Your task to perform on an android device: View the shopping cart on bestbuy. Add "usb-c to usb-a" to the cart on bestbuy Image 0: 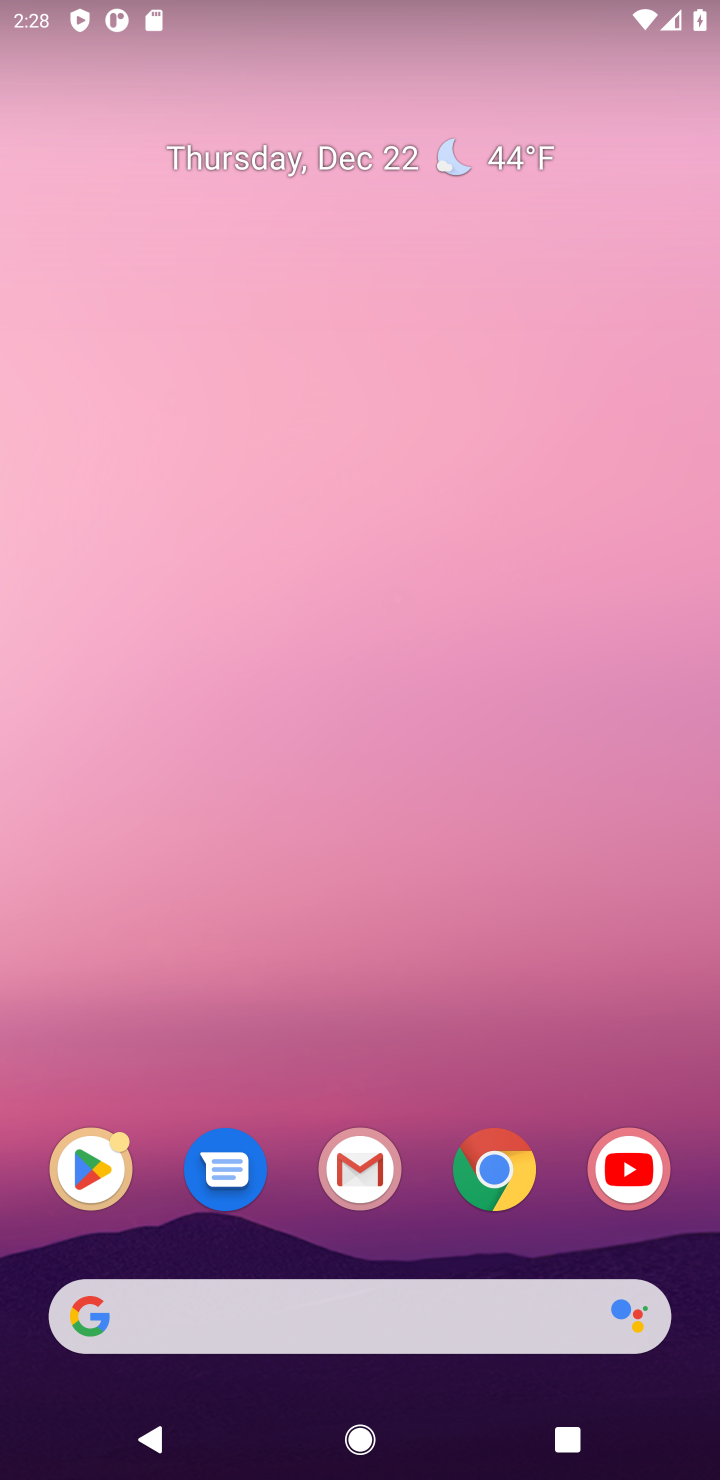
Step 0: click (499, 1162)
Your task to perform on an android device: View the shopping cart on bestbuy. Add "usb-c to usb-a" to the cart on bestbuy Image 1: 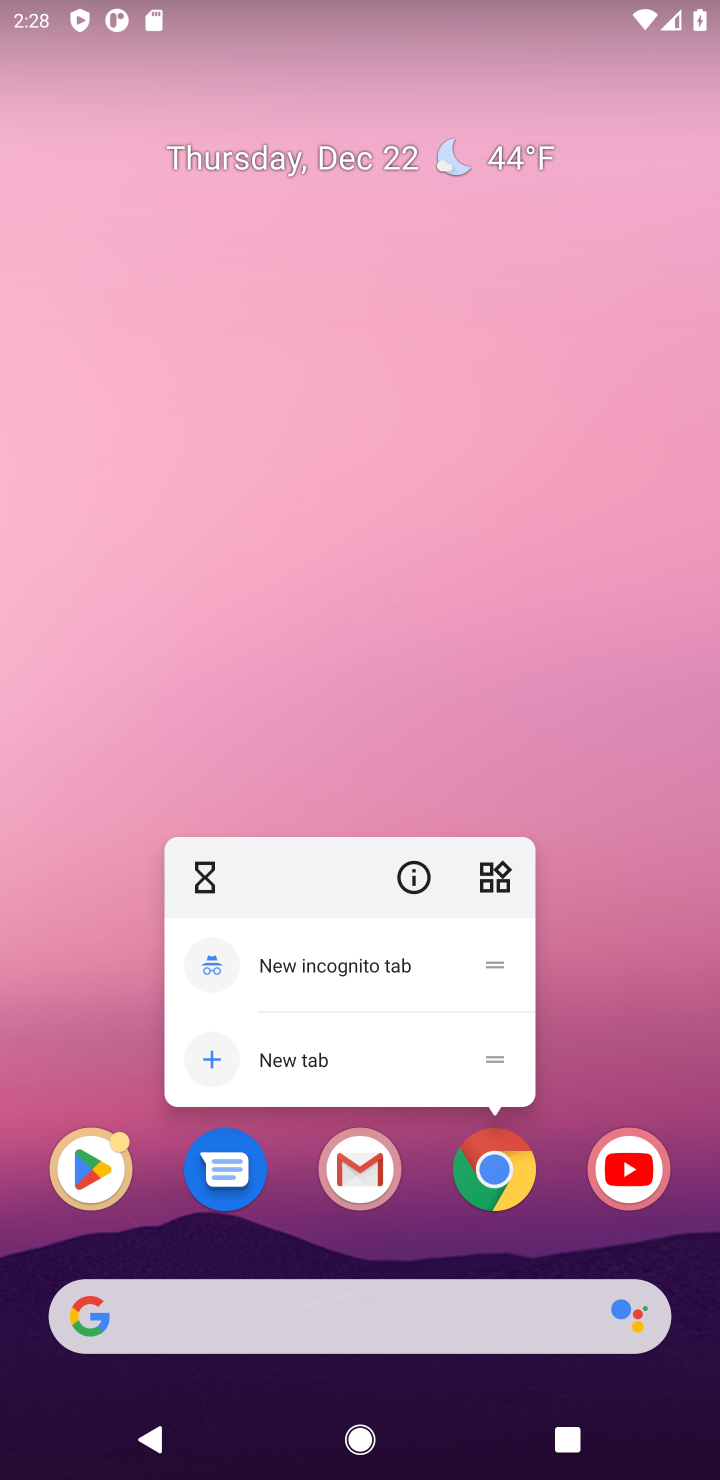
Step 1: click (499, 1162)
Your task to perform on an android device: View the shopping cart on bestbuy. Add "usb-c to usb-a" to the cart on bestbuy Image 2: 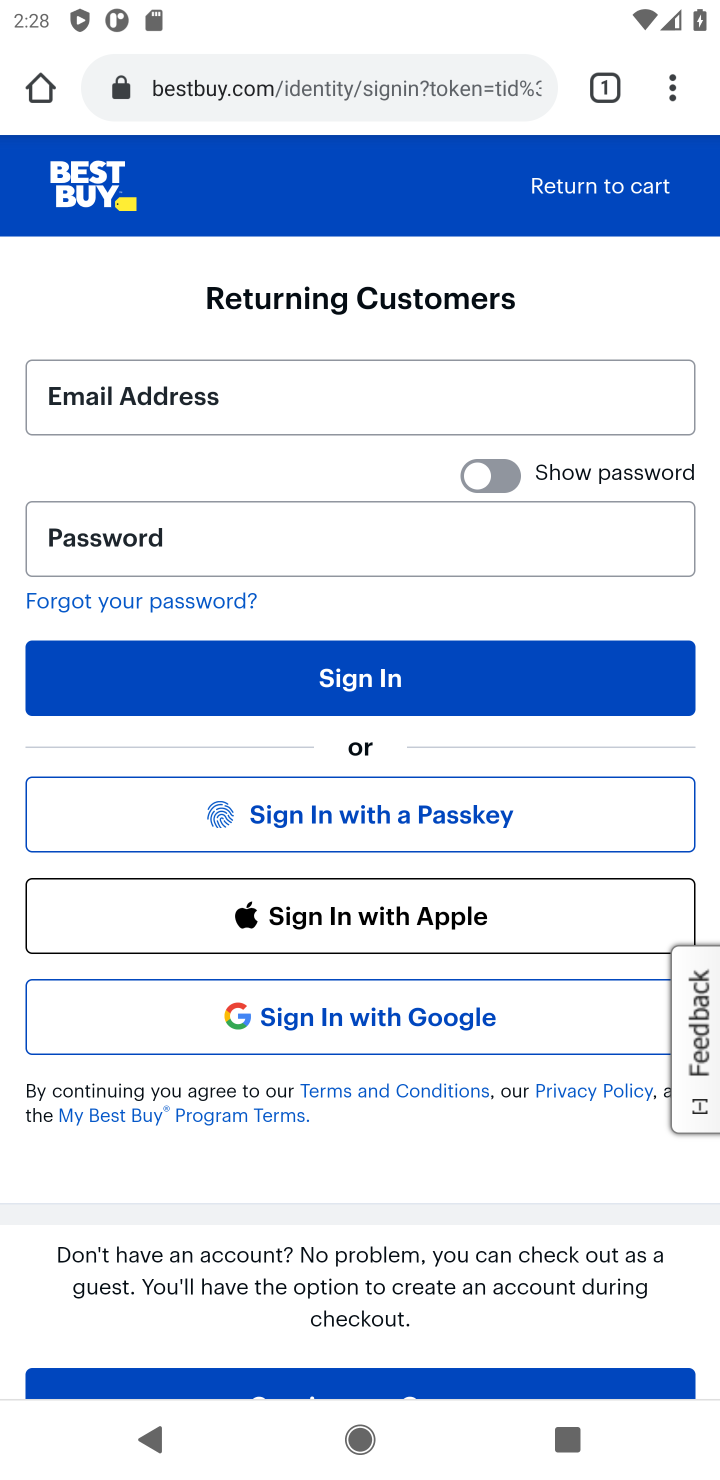
Step 2: press back button
Your task to perform on an android device: View the shopping cart on bestbuy. Add "usb-c to usb-a" to the cart on bestbuy Image 3: 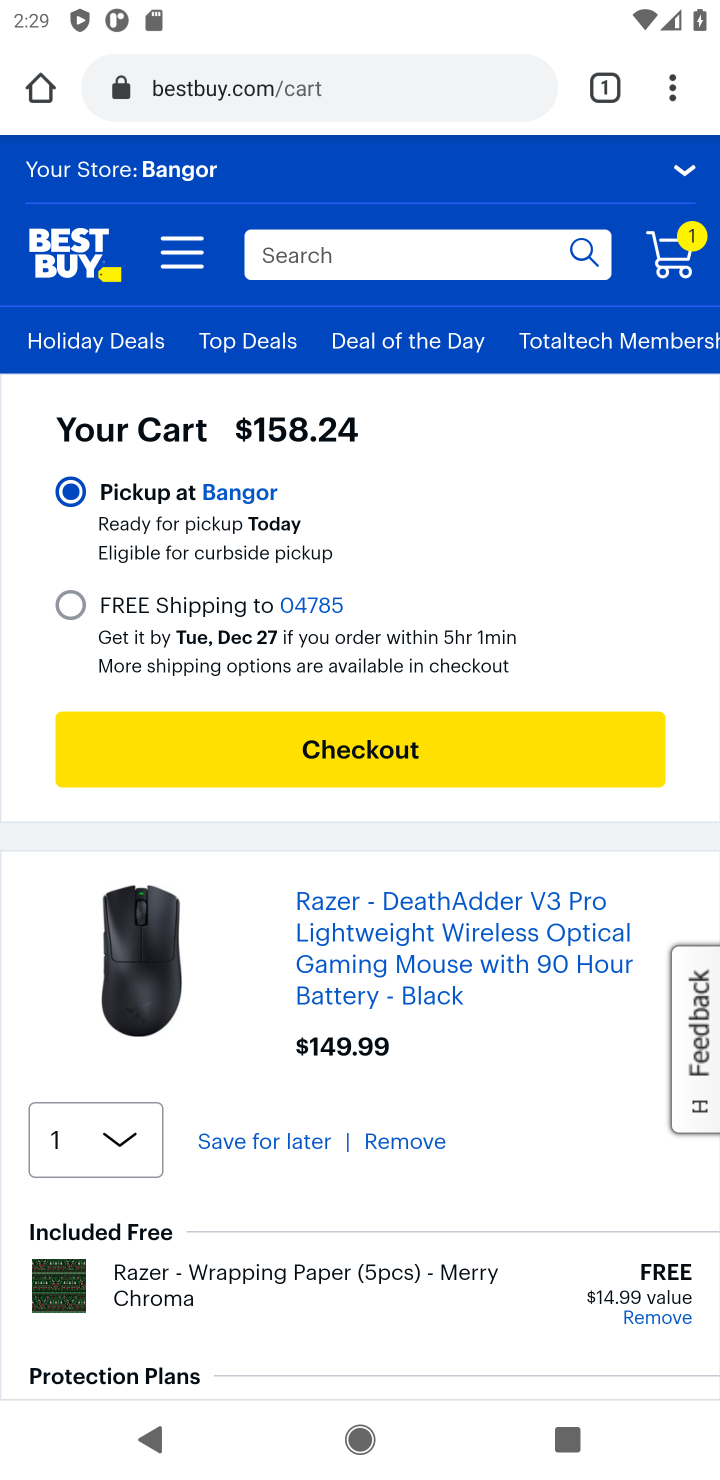
Step 3: click (290, 255)
Your task to perform on an android device: View the shopping cart on bestbuy. Add "usb-c to usb-a" to the cart on bestbuy Image 4: 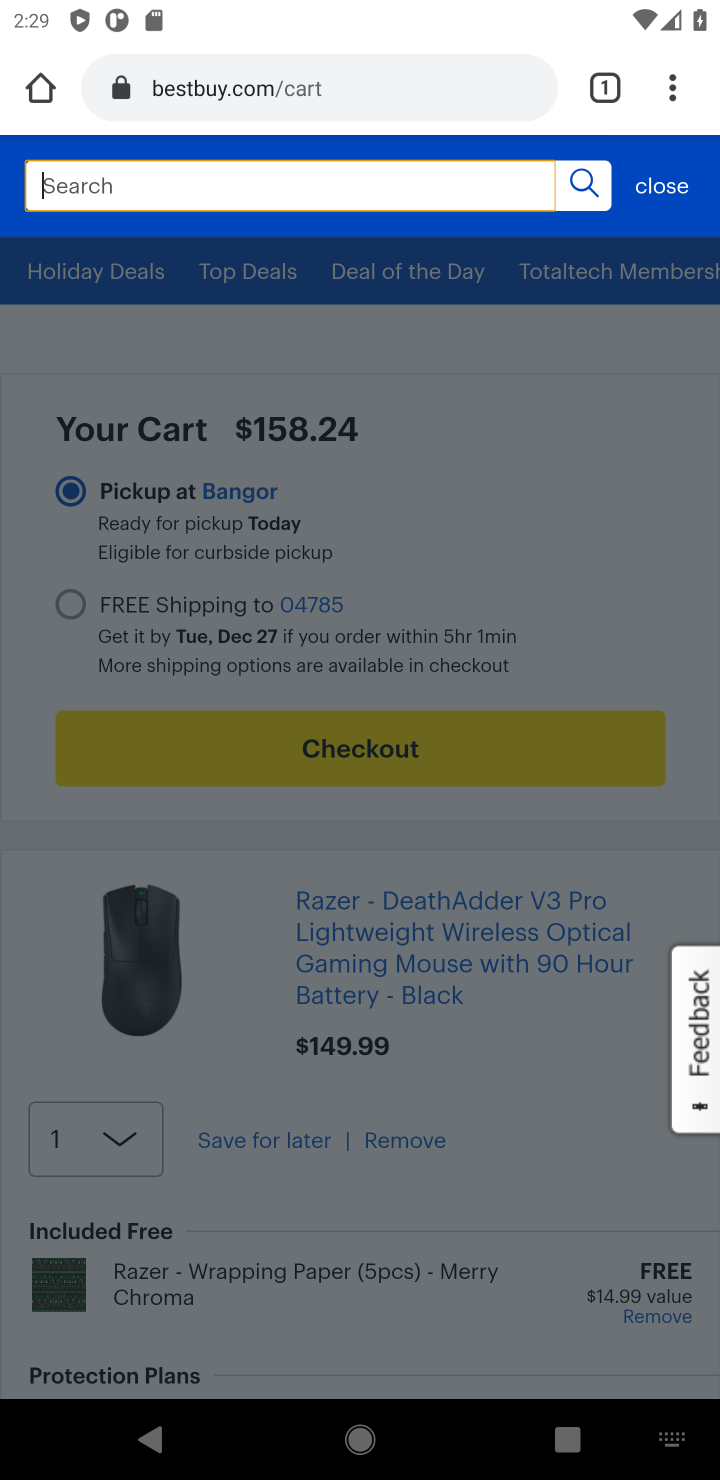
Step 4: type "usb-c to usb-a"
Your task to perform on an android device: View the shopping cart on bestbuy. Add "usb-c to usb-a" to the cart on bestbuy Image 5: 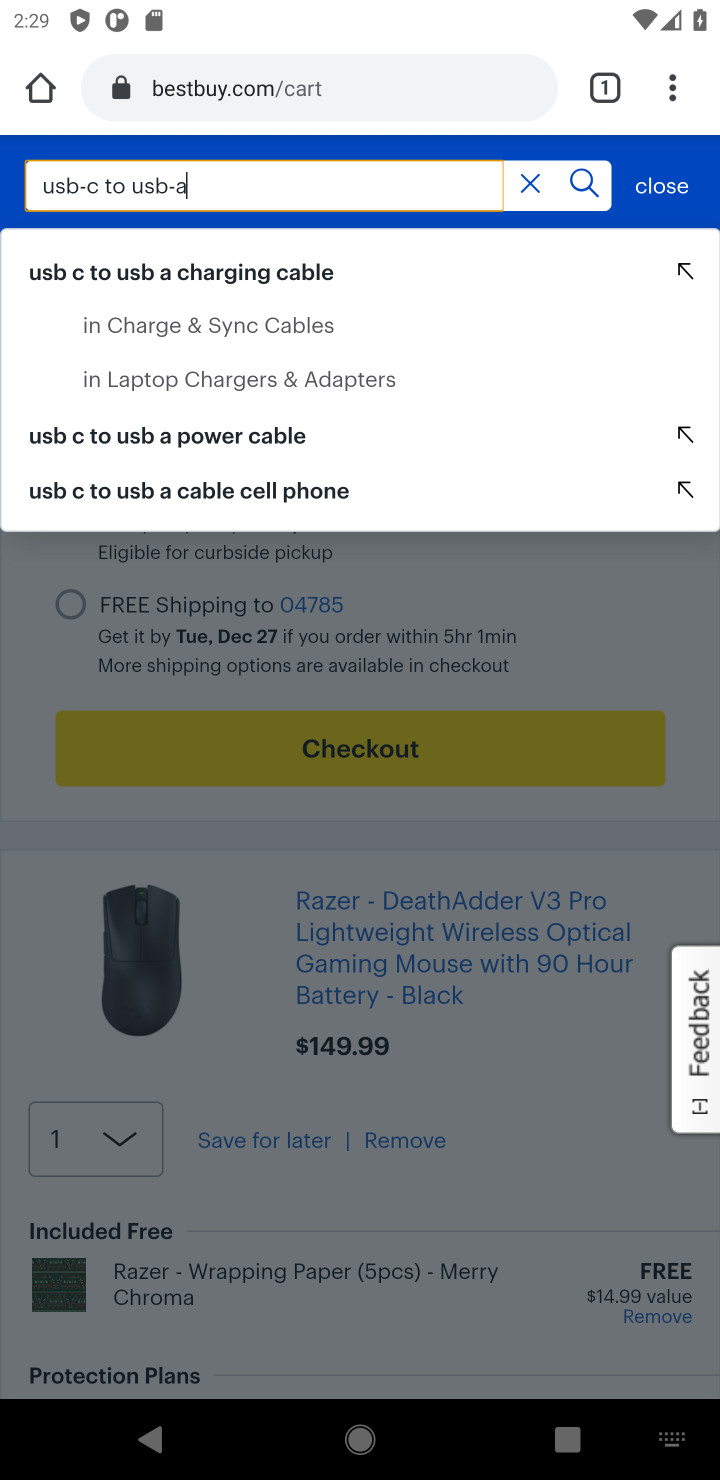
Step 5: click (574, 185)
Your task to perform on an android device: View the shopping cart on bestbuy. Add "usb-c to usb-a" to the cart on bestbuy Image 6: 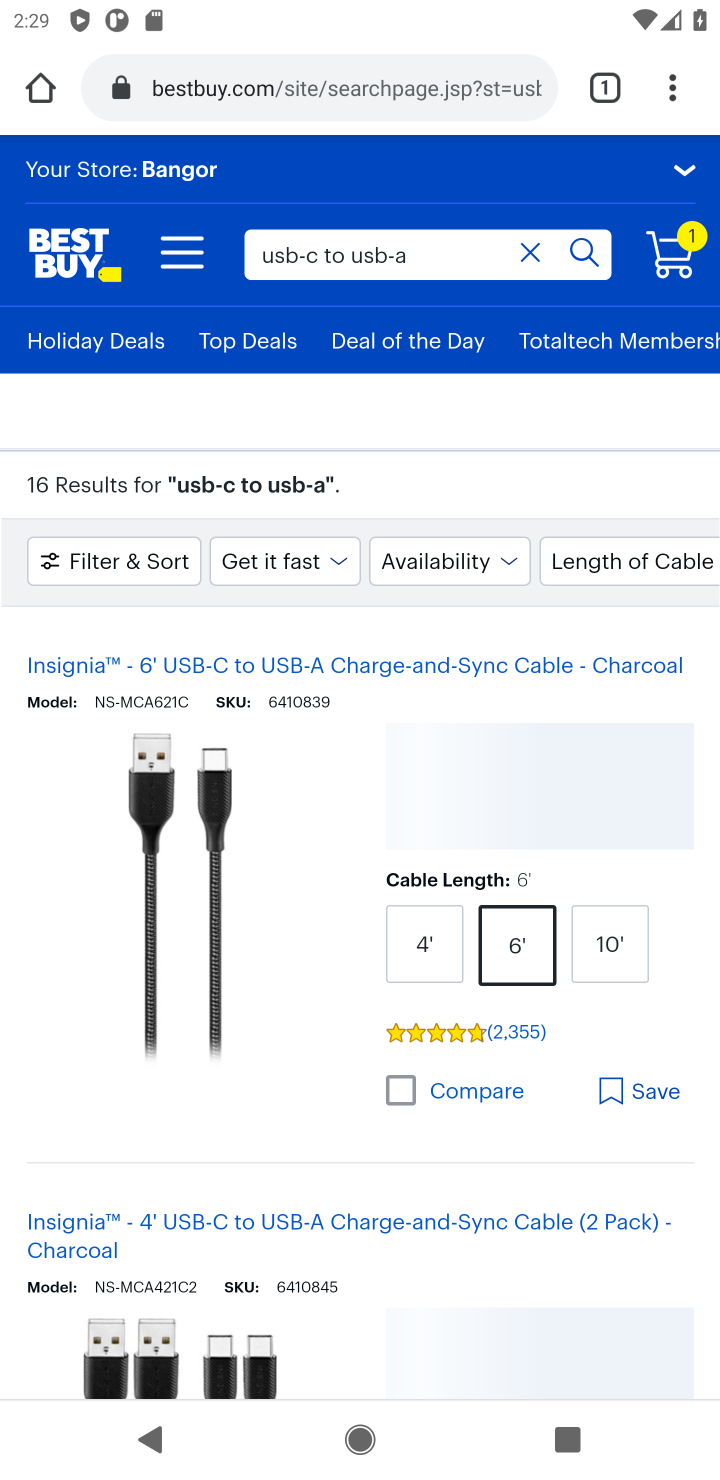
Step 6: drag from (266, 738) to (308, 453)
Your task to perform on an android device: View the shopping cart on bestbuy. Add "usb-c to usb-a" to the cart on bestbuy Image 7: 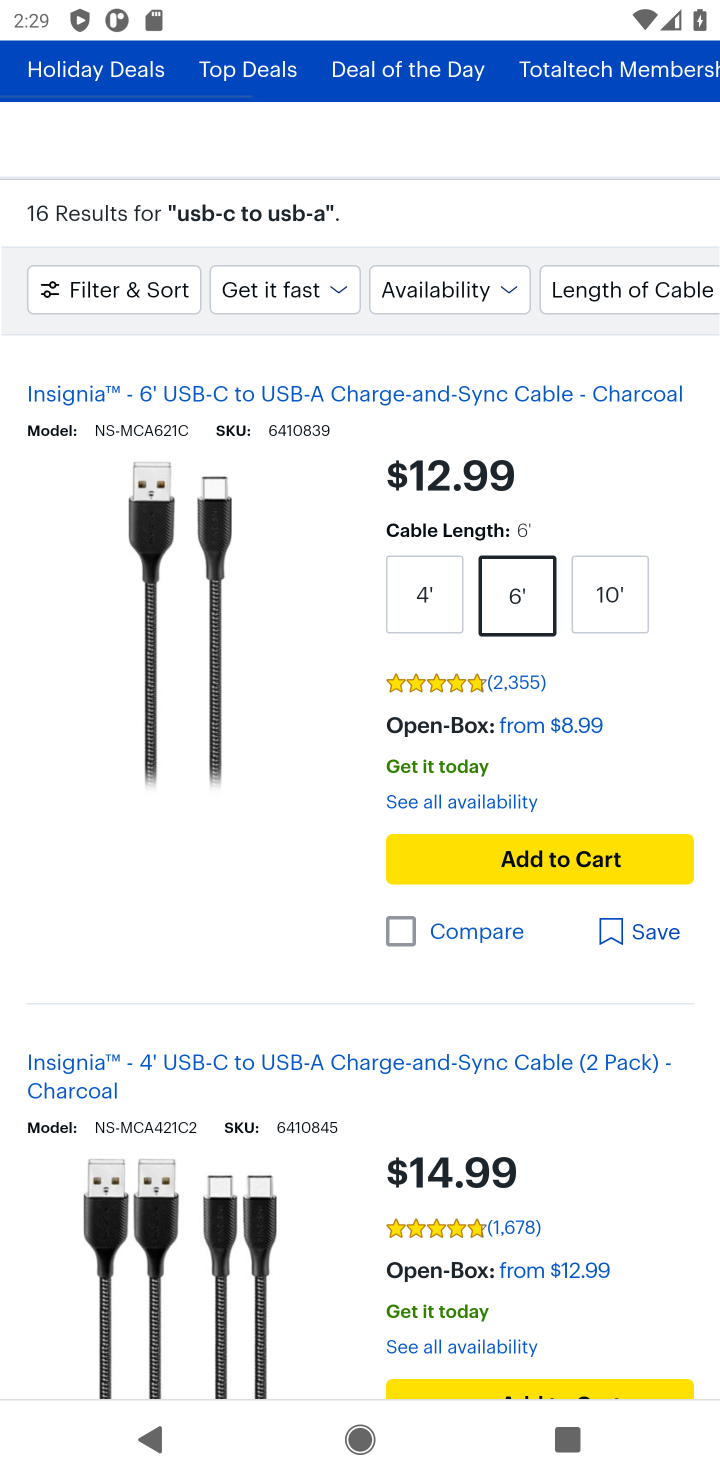
Step 7: click (489, 742)
Your task to perform on an android device: View the shopping cart on bestbuy. Add "usb-c to usb-a" to the cart on bestbuy Image 8: 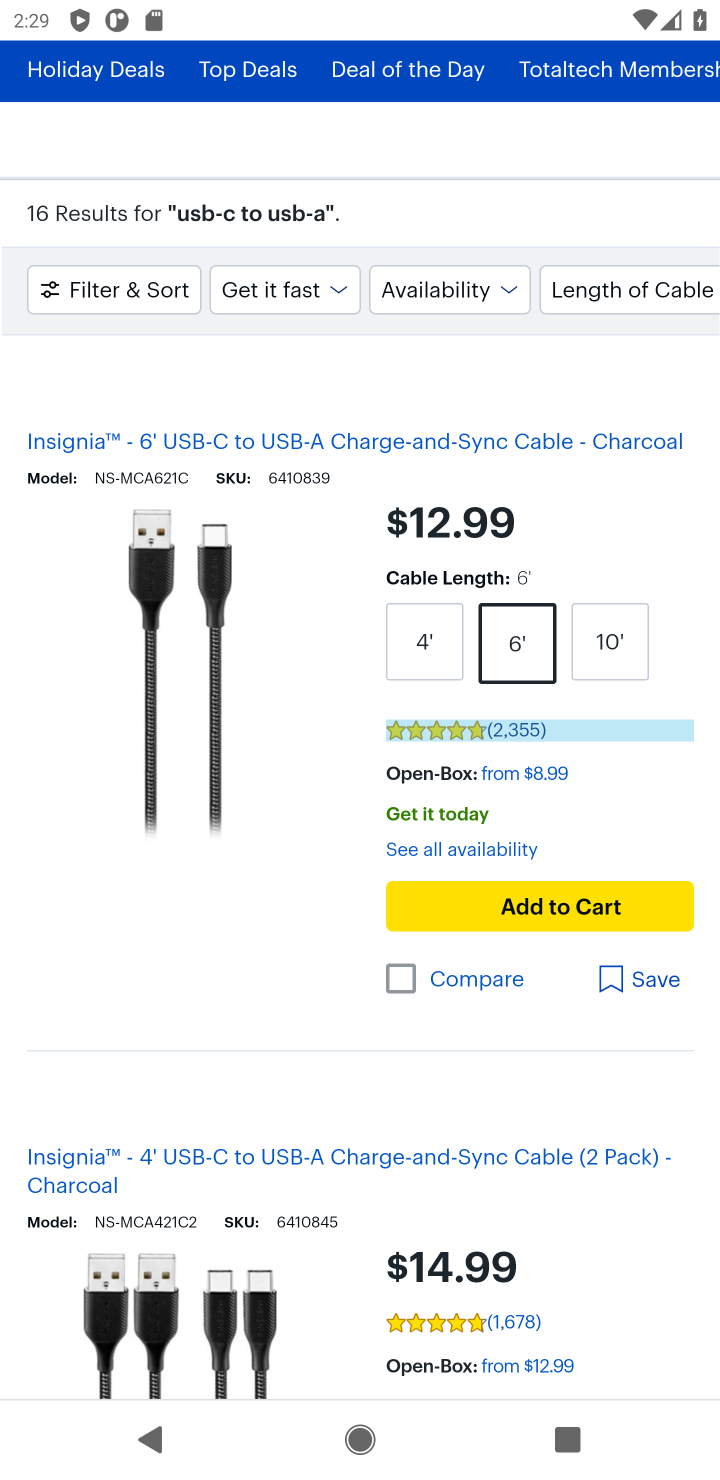
Step 8: click (517, 905)
Your task to perform on an android device: View the shopping cart on bestbuy. Add "usb-c to usb-a" to the cart on bestbuy Image 9: 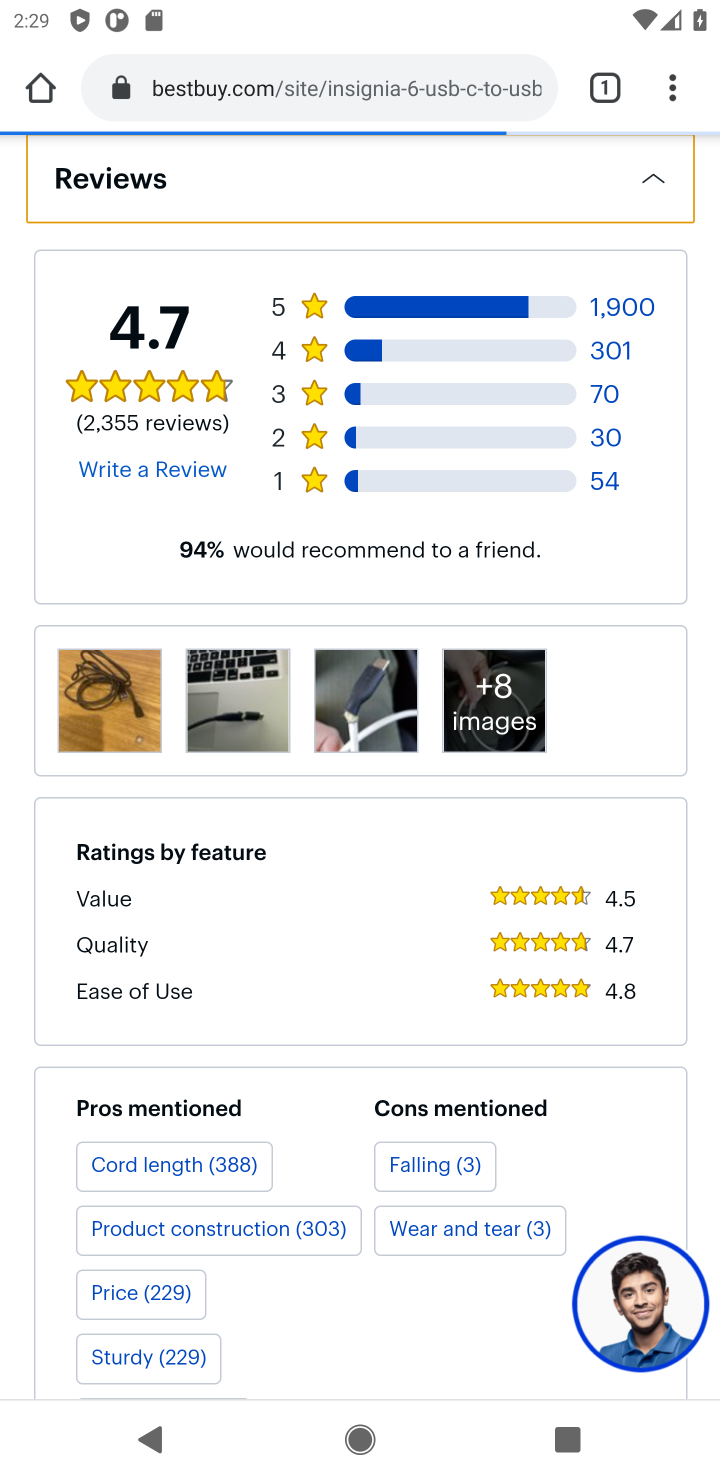
Step 9: drag from (424, 874) to (423, 396)
Your task to perform on an android device: View the shopping cart on bestbuy. Add "usb-c to usb-a" to the cart on bestbuy Image 10: 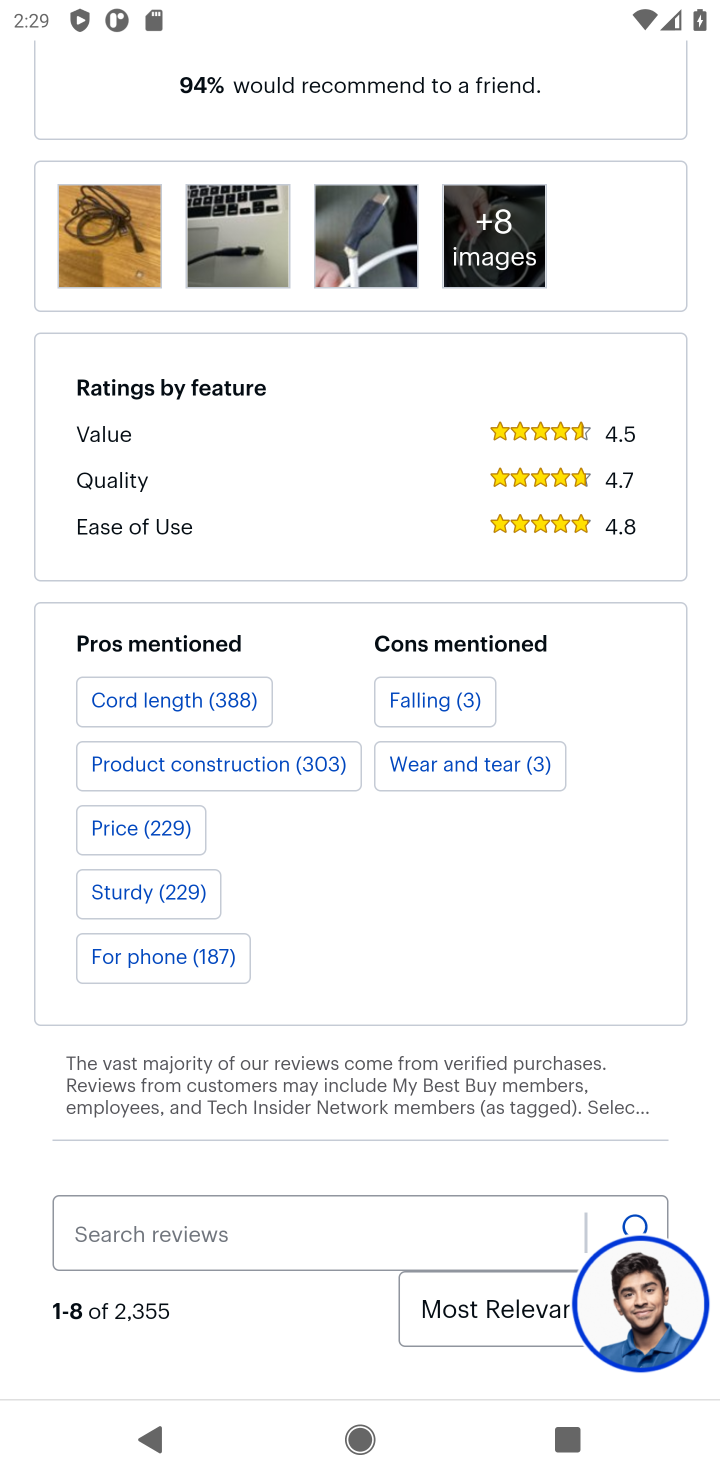
Step 10: drag from (336, 1105) to (412, 601)
Your task to perform on an android device: View the shopping cart on bestbuy. Add "usb-c to usb-a" to the cart on bestbuy Image 11: 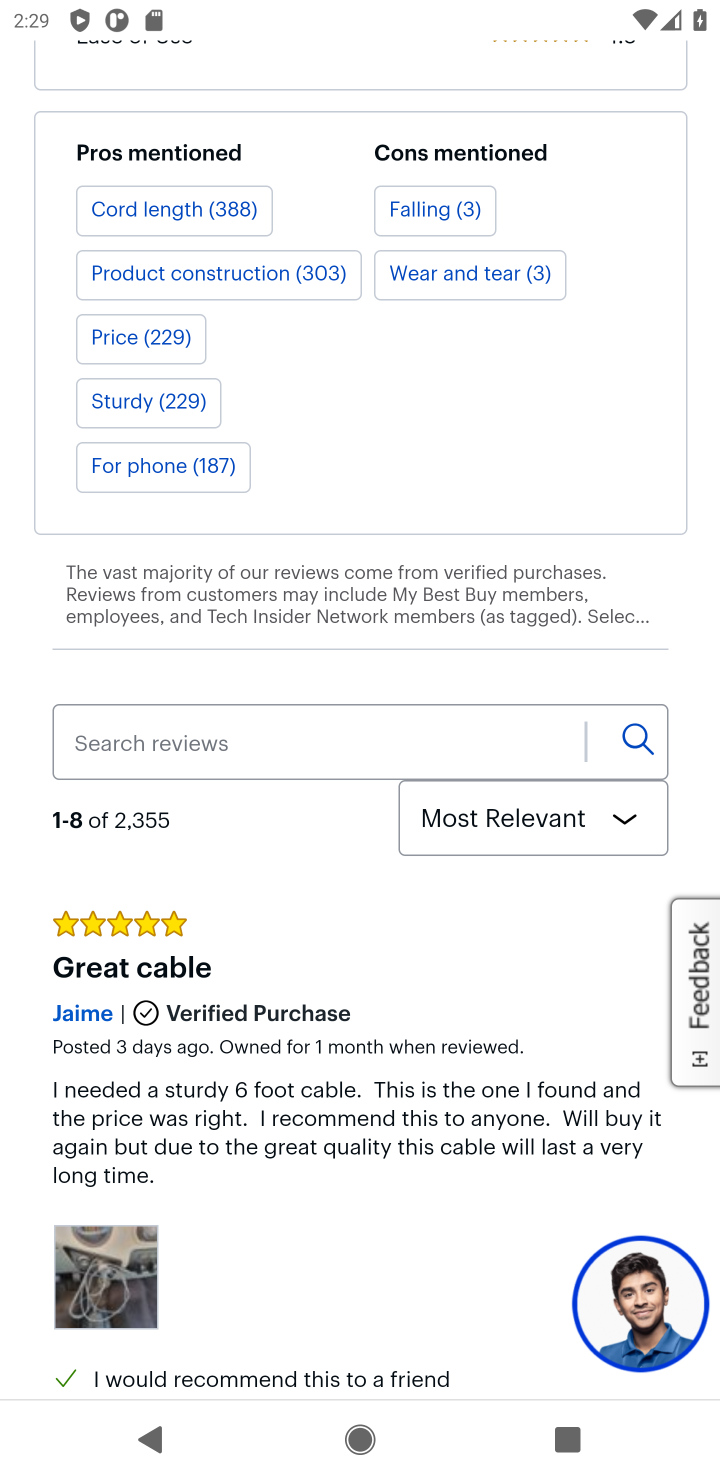
Step 11: press back button
Your task to perform on an android device: View the shopping cart on bestbuy. Add "usb-c to usb-a" to the cart on bestbuy Image 12: 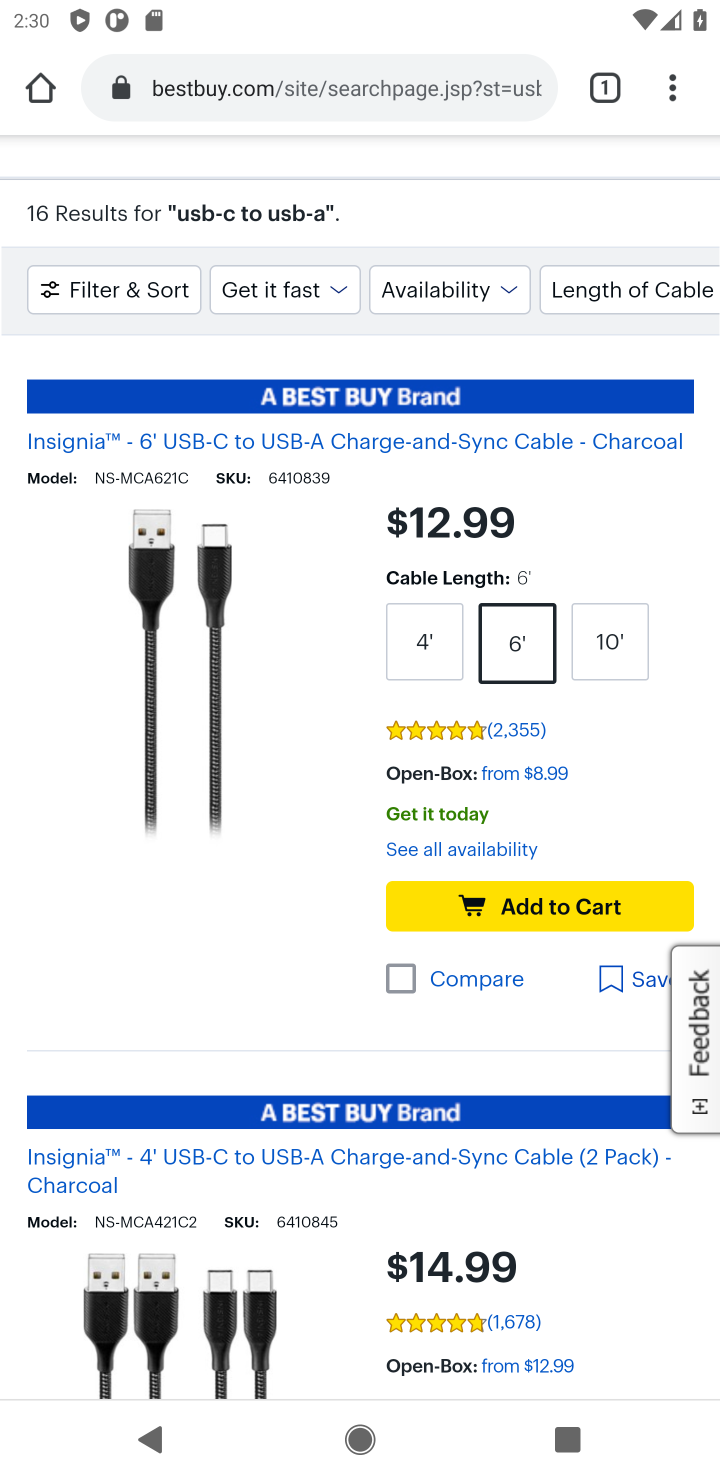
Step 12: click (496, 913)
Your task to perform on an android device: View the shopping cart on bestbuy. Add "usb-c to usb-a" to the cart on bestbuy Image 13: 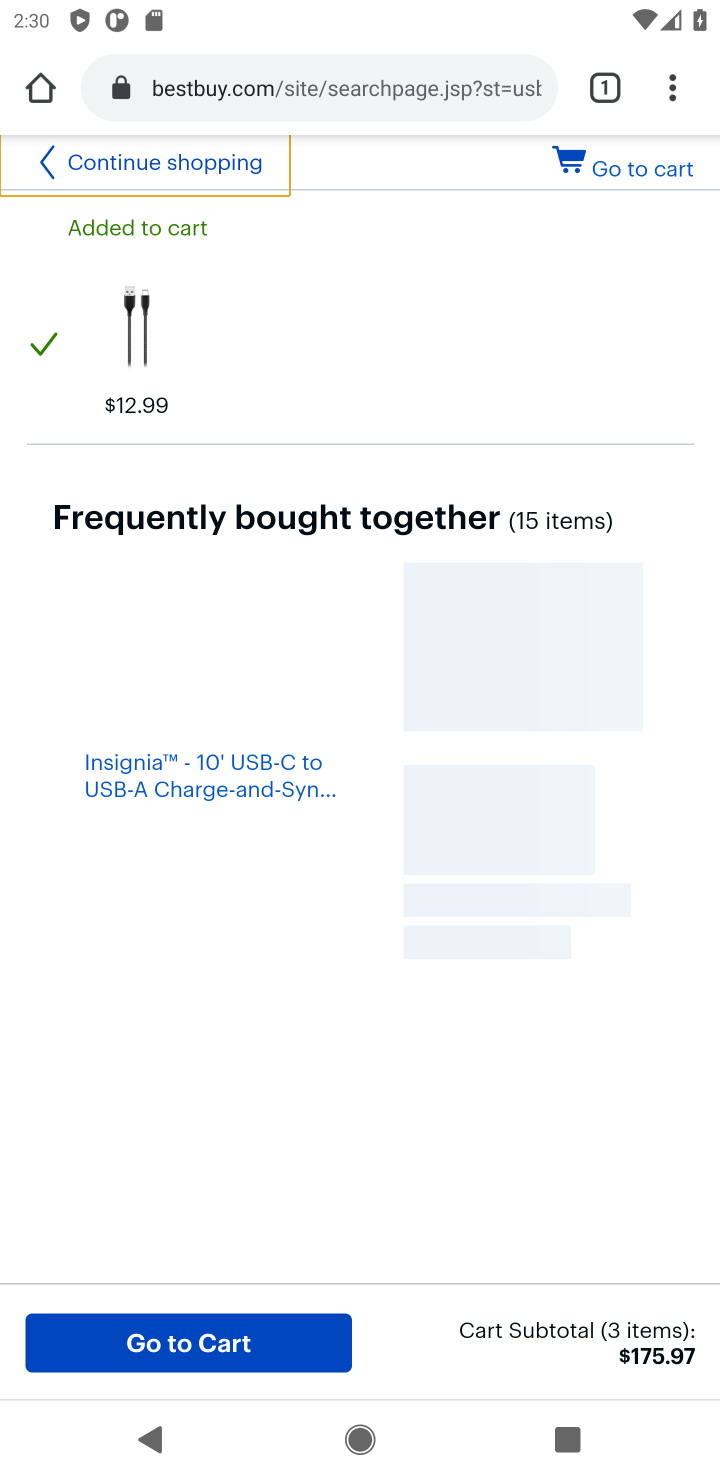
Step 13: task complete